Your task to perform on an android device: turn smart compose on in the gmail app Image 0: 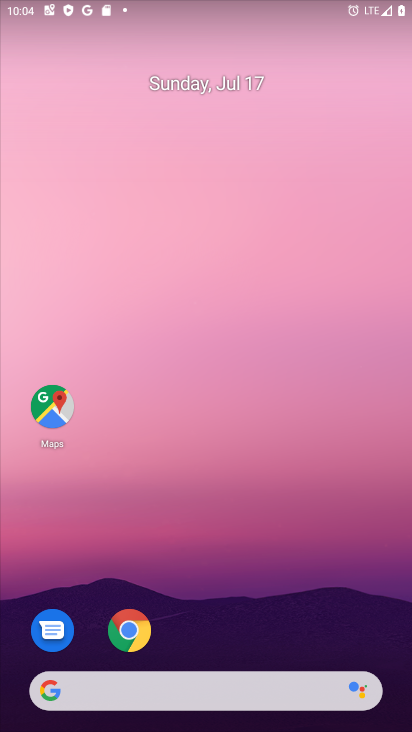
Step 0: press home button
Your task to perform on an android device: turn smart compose on in the gmail app Image 1: 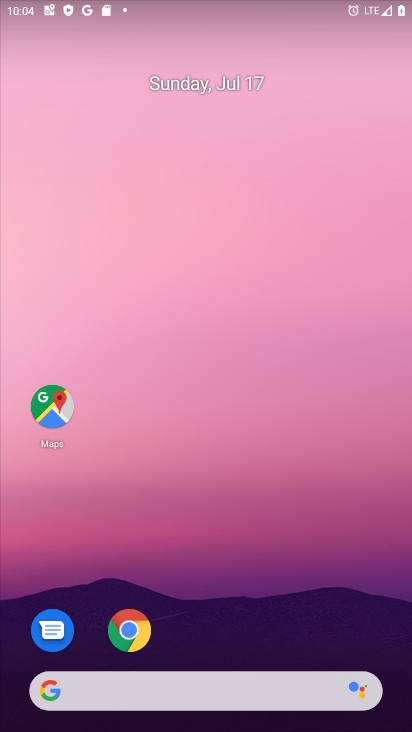
Step 1: drag from (228, 657) to (331, 75)
Your task to perform on an android device: turn smart compose on in the gmail app Image 2: 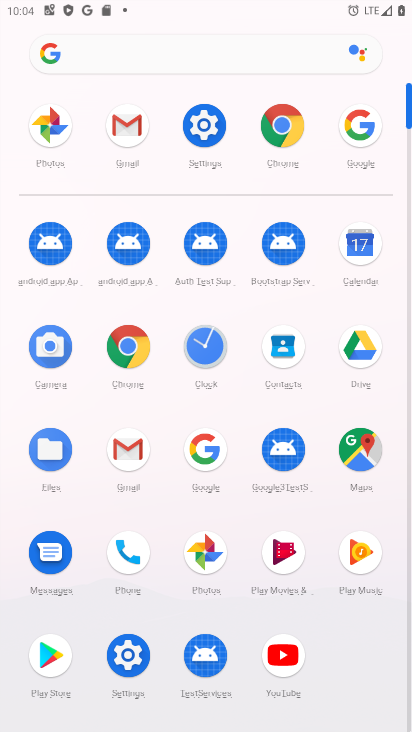
Step 2: click (127, 118)
Your task to perform on an android device: turn smart compose on in the gmail app Image 3: 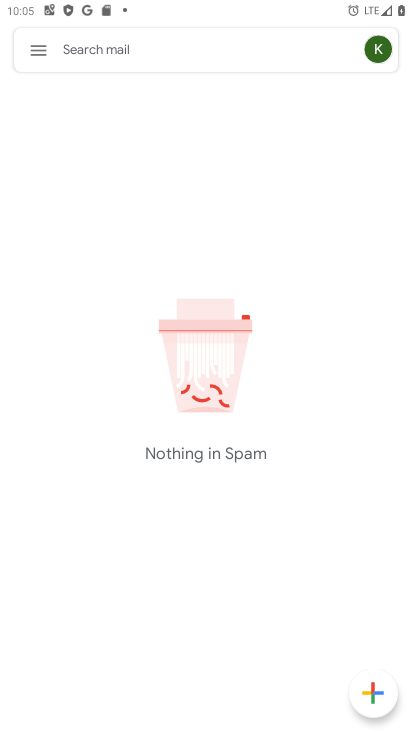
Step 3: click (31, 44)
Your task to perform on an android device: turn smart compose on in the gmail app Image 4: 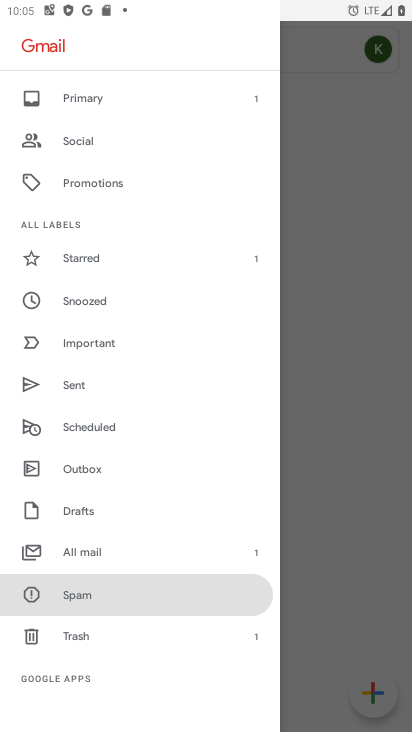
Step 4: drag from (128, 656) to (188, 269)
Your task to perform on an android device: turn smart compose on in the gmail app Image 5: 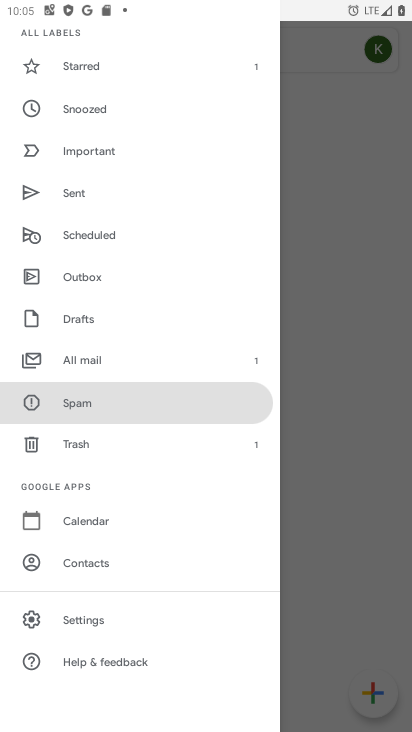
Step 5: click (109, 618)
Your task to perform on an android device: turn smart compose on in the gmail app Image 6: 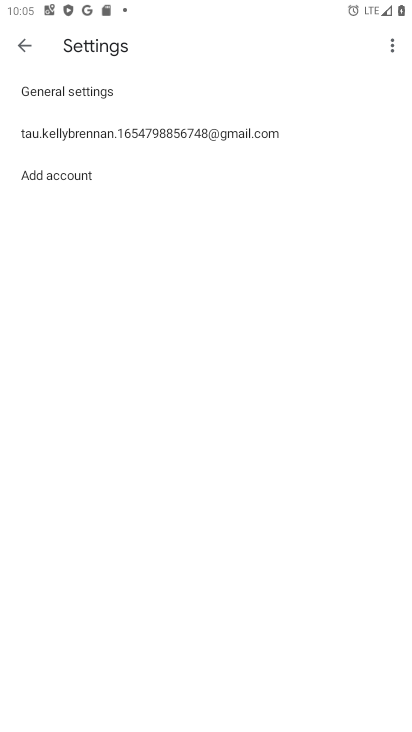
Step 6: click (112, 127)
Your task to perform on an android device: turn smart compose on in the gmail app Image 7: 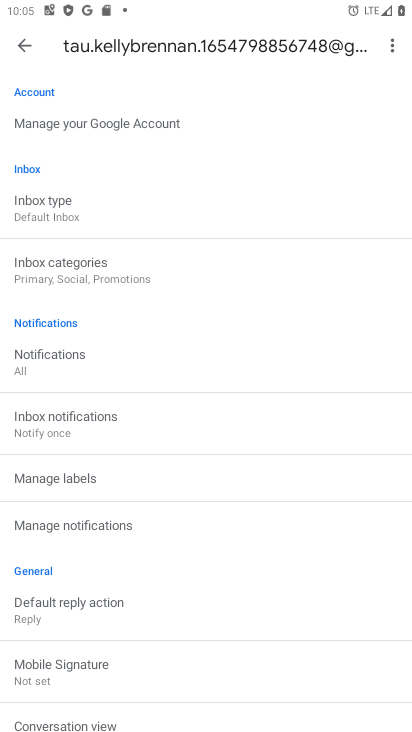
Step 7: task complete